Your task to perform on an android device: turn on data saver in the chrome app Image 0: 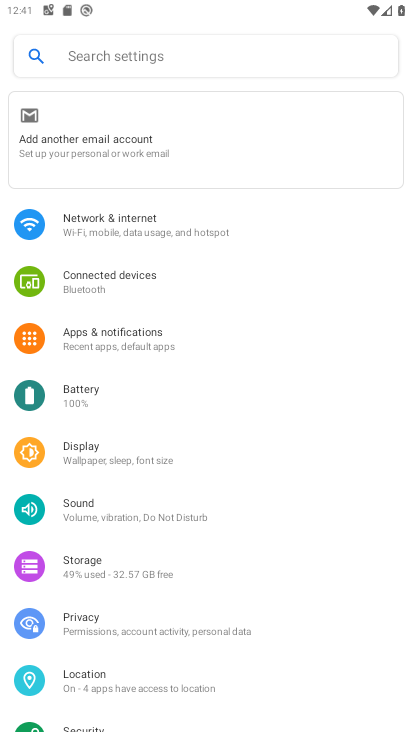
Step 0: press home button
Your task to perform on an android device: turn on data saver in the chrome app Image 1: 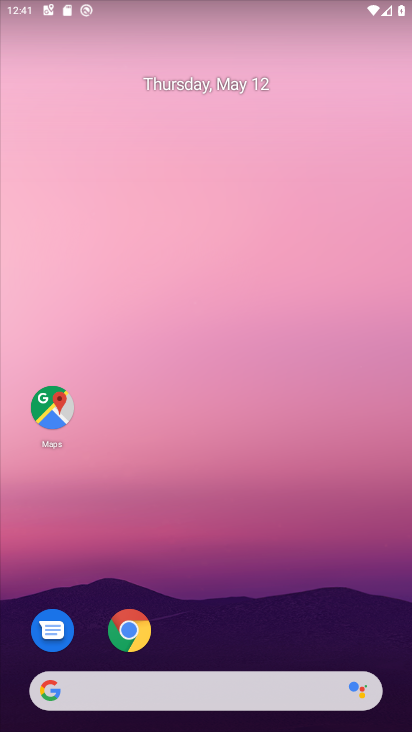
Step 1: click (121, 616)
Your task to perform on an android device: turn on data saver in the chrome app Image 2: 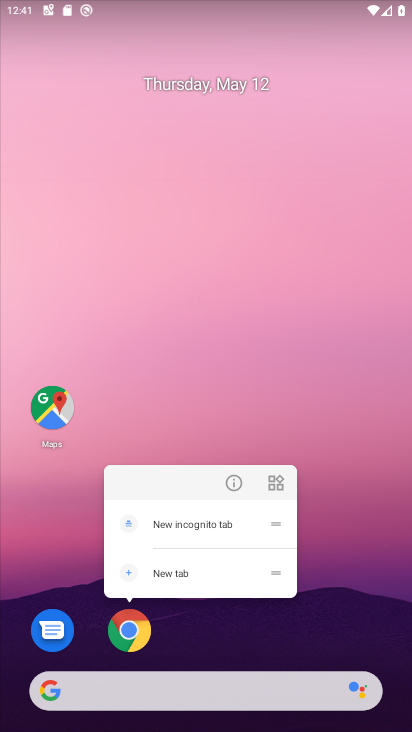
Step 2: click (138, 627)
Your task to perform on an android device: turn on data saver in the chrome app Image 3: 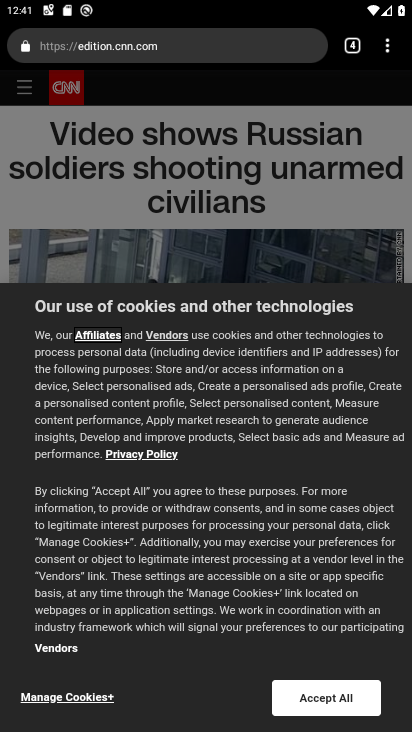
Step 3: drag from (387, 53) to (221, 499)
Your task to perform on an android device: turn on data saver in the chrome app Image 4: 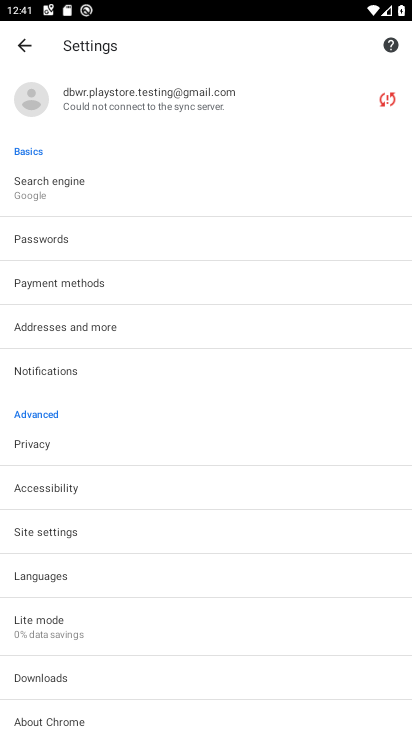
Step 4: drag from (121, 636) to (123, 424)
Your task to perform on an android device: turn on data saver in the chrome app Image 5: 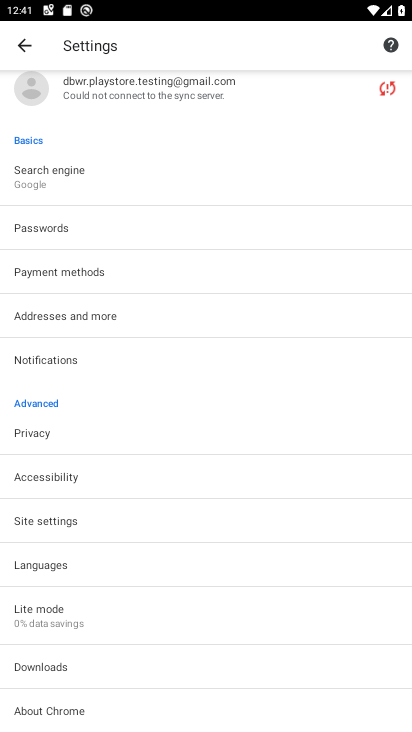
Step 5: click (29, 619)
Your task to perform on an android device: turn on data saver in the chrome app Image 6: 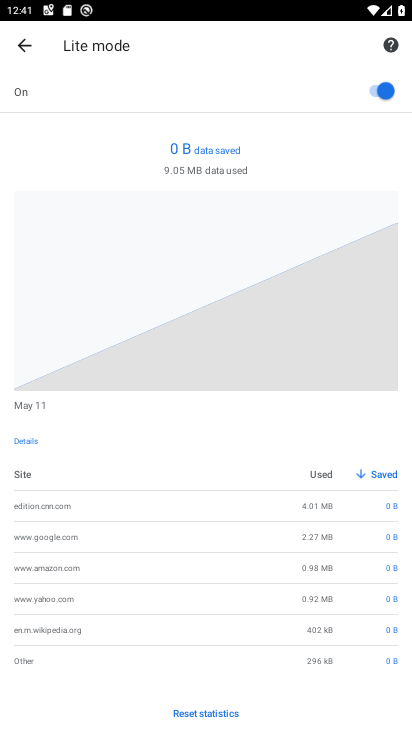
Step 6: task complete